Your task to perform on an android device: How much does a 3 bedroom apartment rent for in Boston? Image 0: 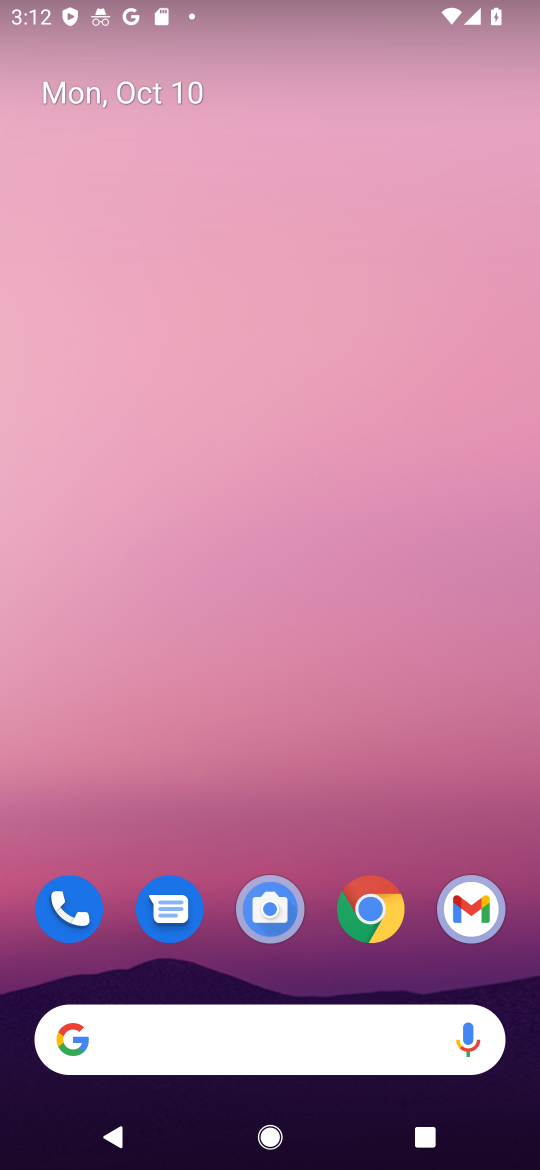
Step 0: click (373, 907)
Your task to perform on an android device: How much does a 3 bedroom apartment rent for in Boston? Image 1: 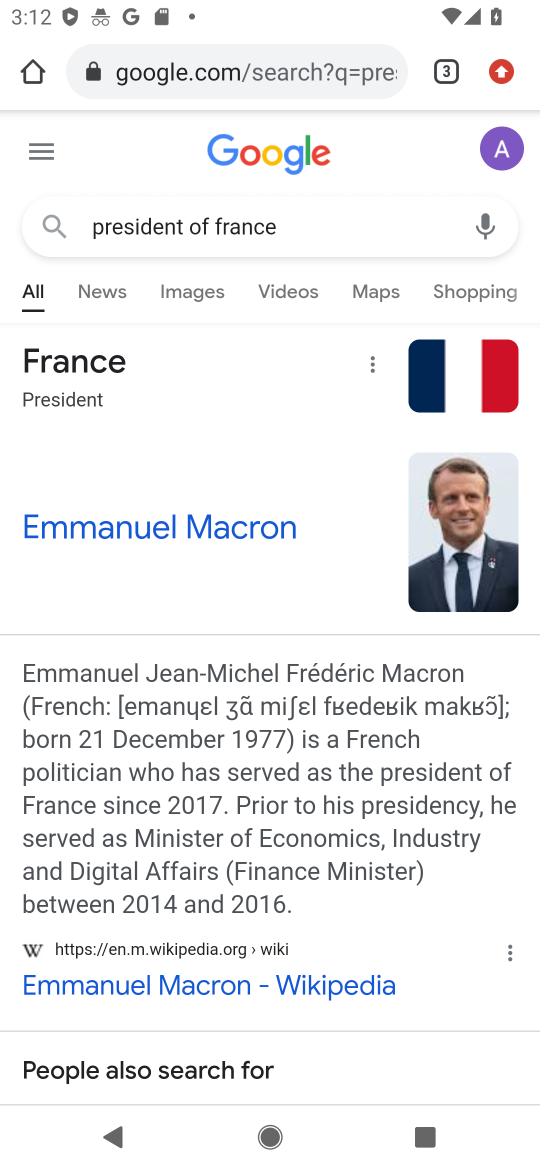
Step 1: click (234, 53)
Your task to perform on an android device: How much does a 3 bedroom apartment rent for in Boston? Image 2: 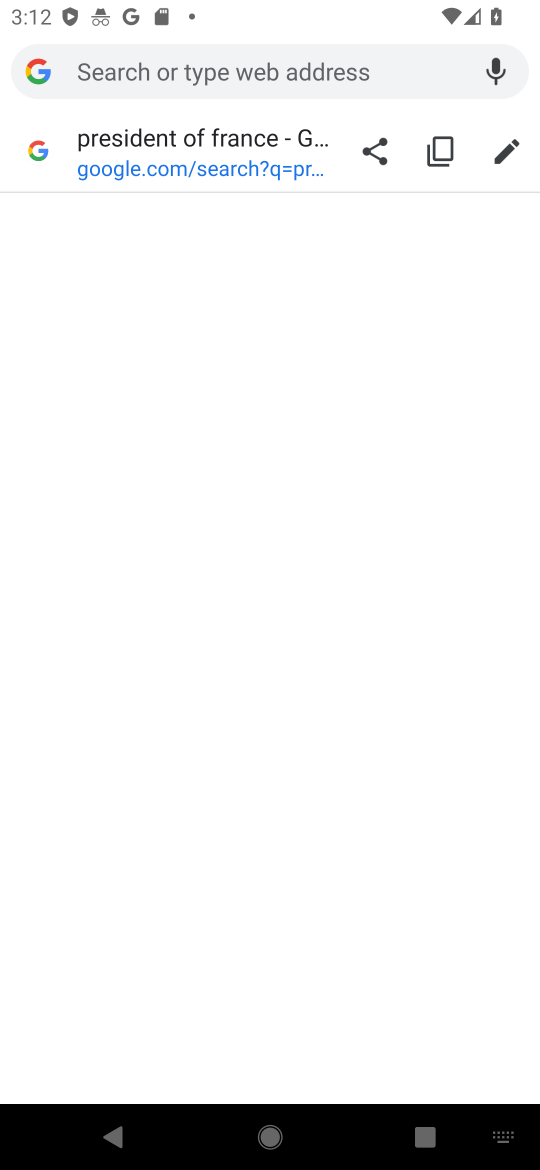
Step 2: type "How much does a 3 bedroom apartment rent for in Boston?"
Your task to perform on an android device: How much does a 3 bedroom apartment rent for in Boston? Image 3: 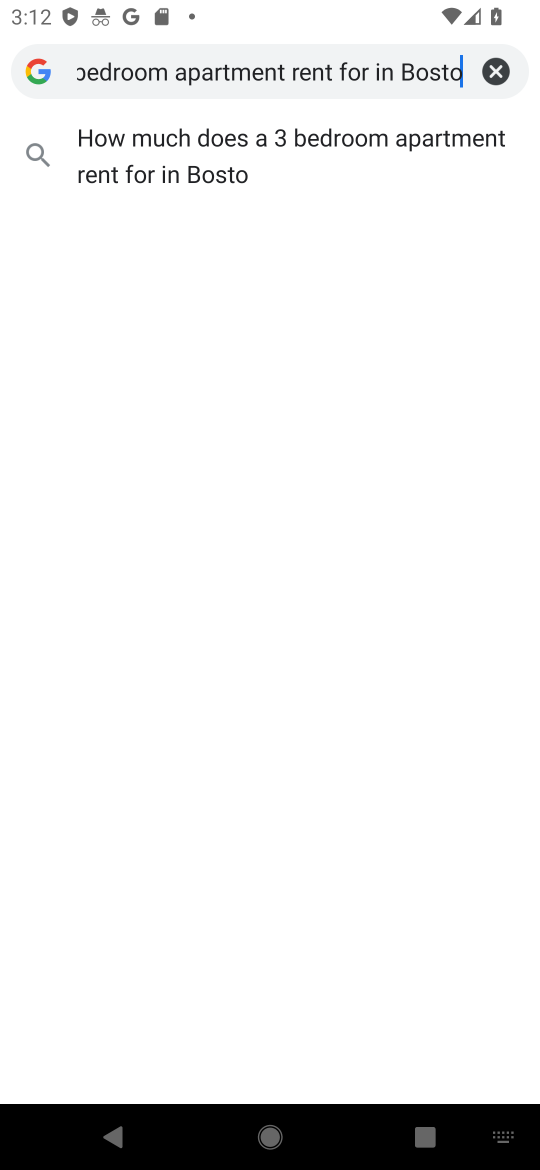
Step 3: type "n"
Your task to perform on an android device: How much does a 3 bedroom apartment rent for in Boston? Image 4: 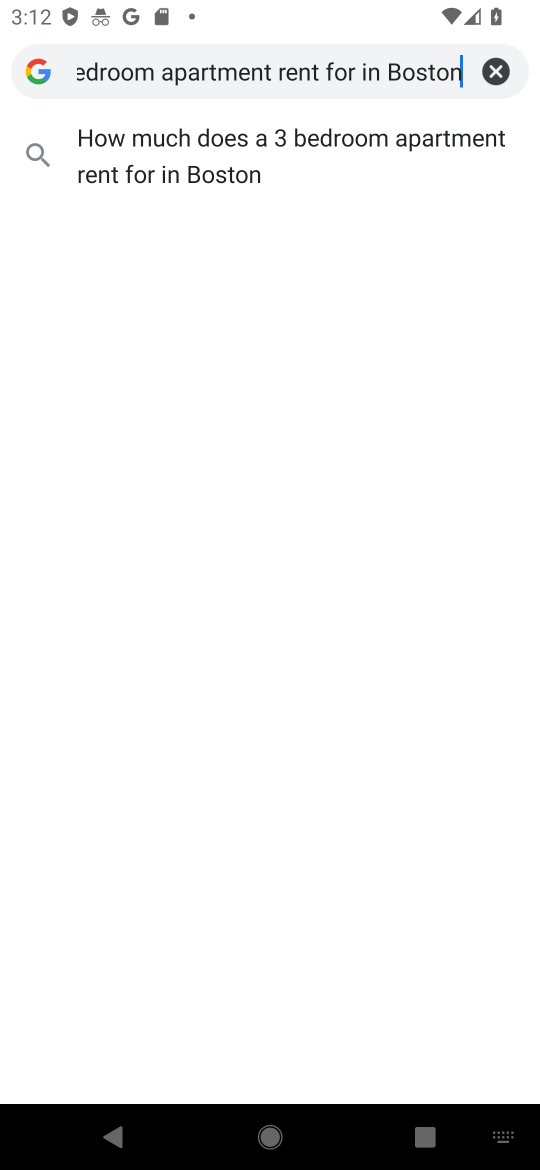
Step 4: click (193, 149)
Your task to perform on an android device: How much does a 3 bedroom apartment rent for in Boston? Image 5: 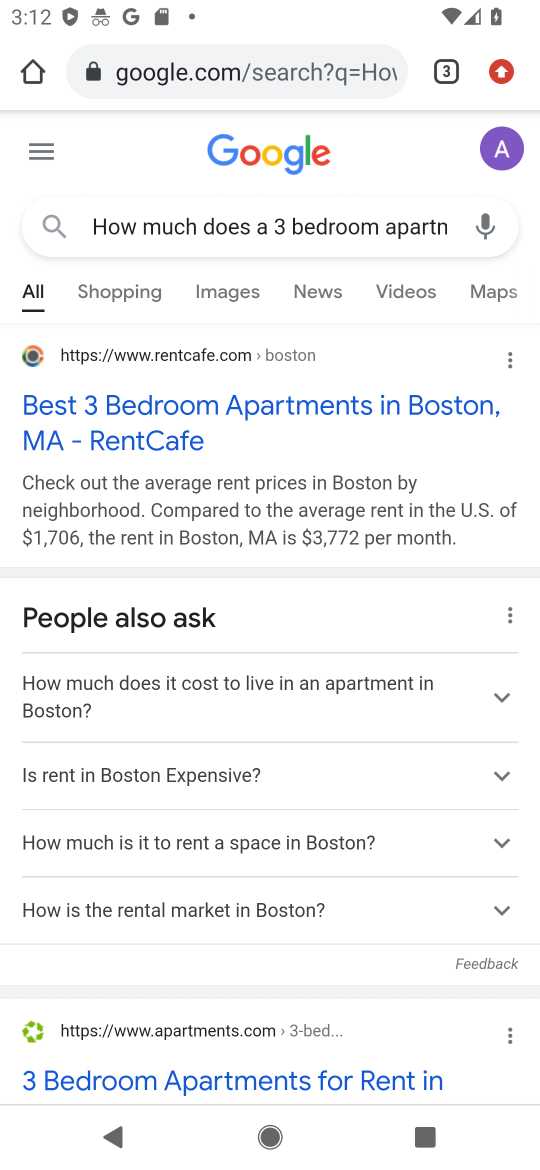
Step 5: click (163, 418)
Your task to perform on an android device: How much does a 3 bedroom apartment rent for in Boston? Image 6: 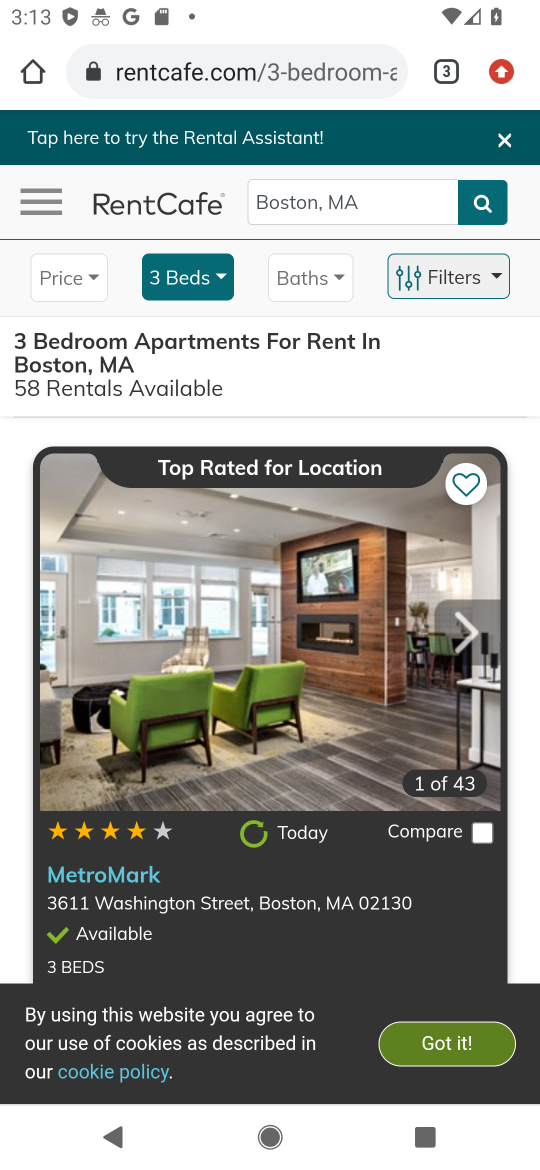
Step 6: click (443, 1036)
Your task to perform on an android device: How much does a 3 bedroom apartment rent for in Boston? Image 7: 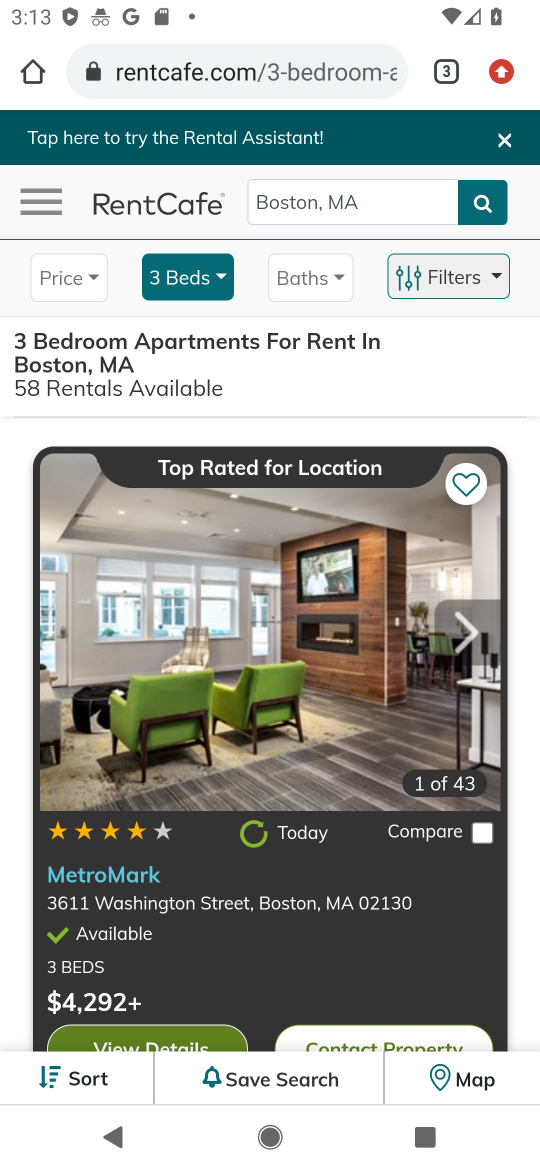
Step 7: task complete